Your task to perform on an android device: Add "razer blade" to the cart on costco Image 0: 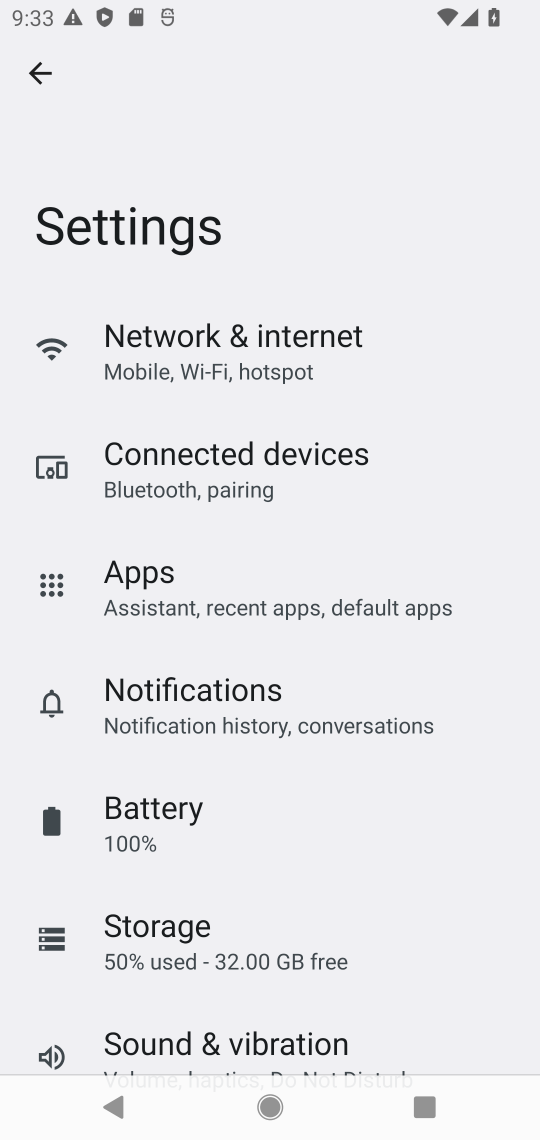
Step 0: press home button
Your task to perform on an android device: Add "razer blade" to the cart on costco Image 1: 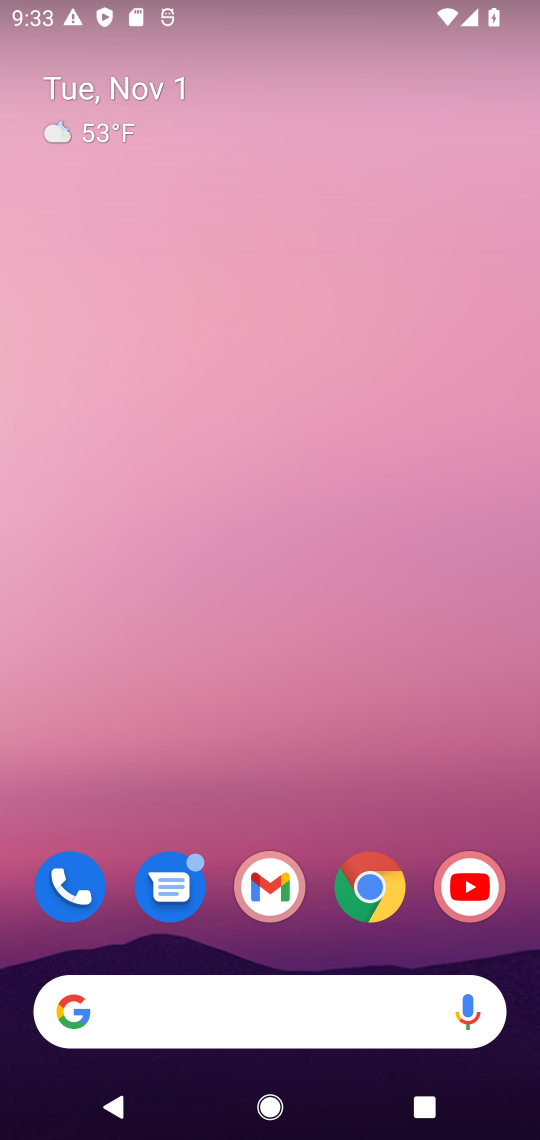
Step 1: drag from (272, 924) to (265, 338)
Your task to perform on an android device: Add "razer blade" to the cart on costco Image 2: 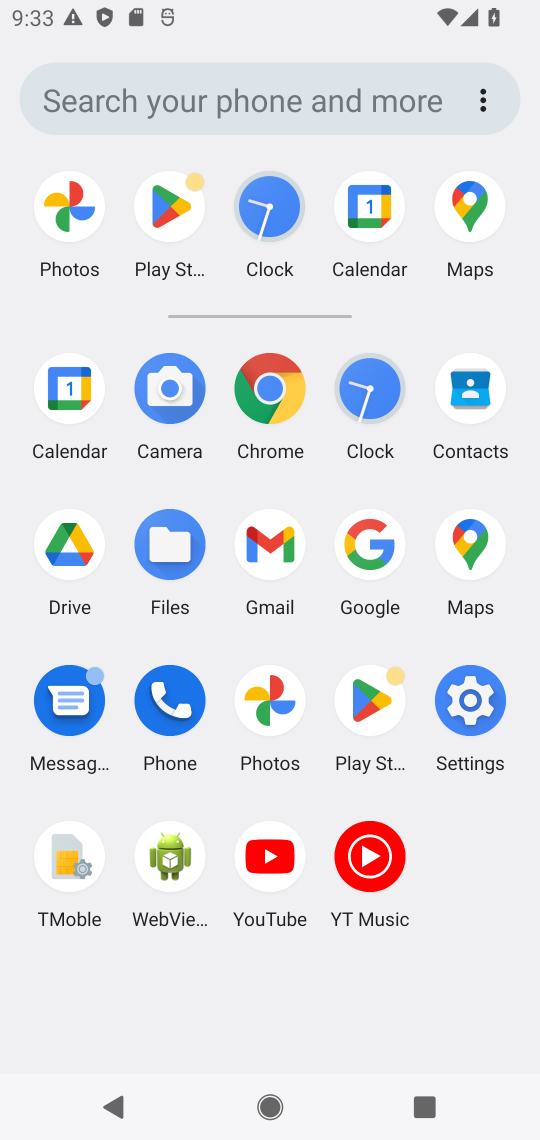
Step 2: click (355, 530)
Your task to perform on an android device: Add "razer blade" to the cart on costco Image 3: 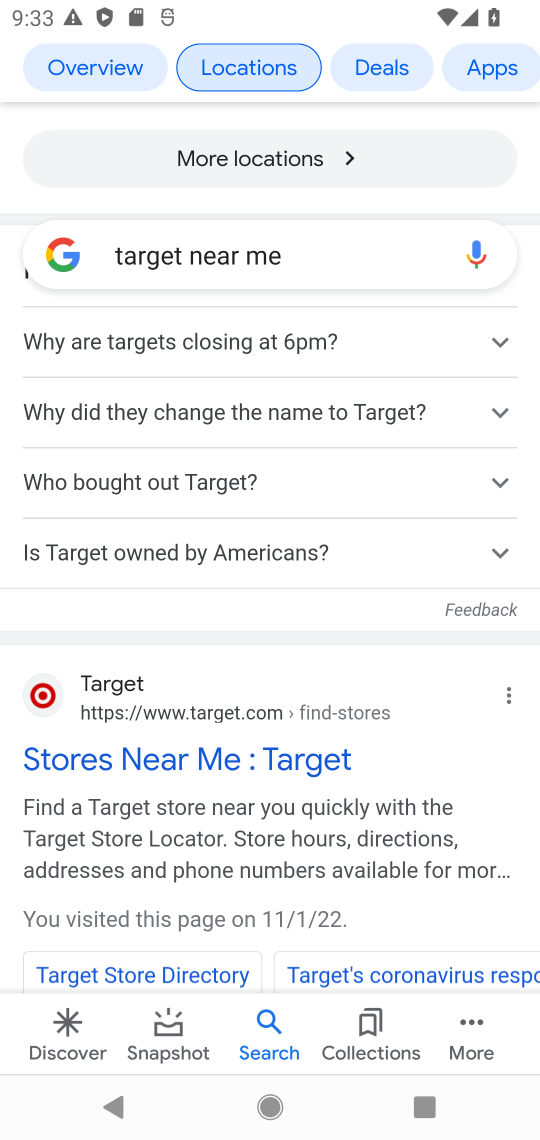
Step 3: click (259, 239)
Your task to perform on an android device: Add "razer blade" to the cart on costco Image 4: 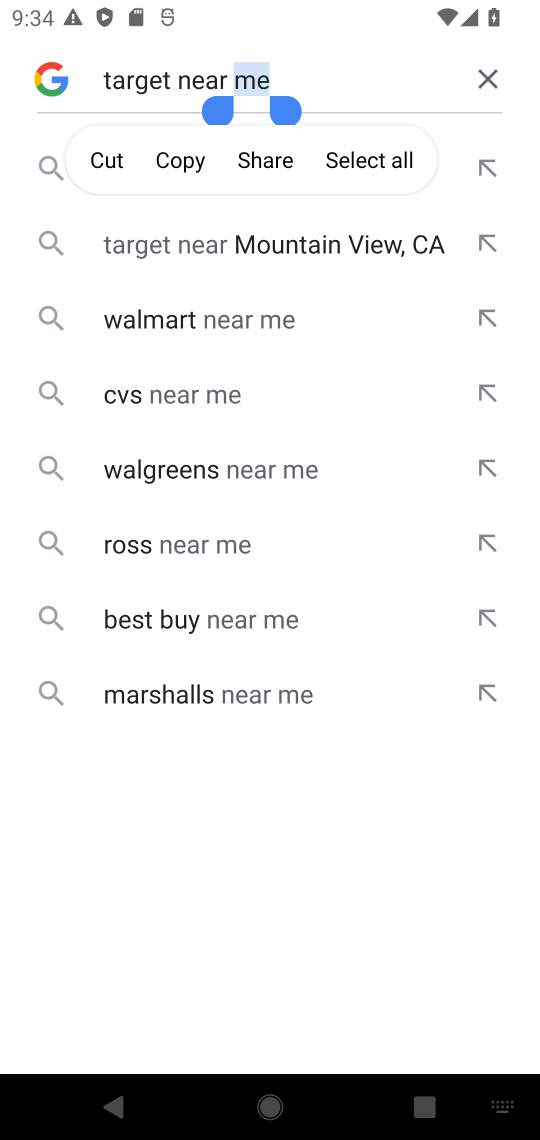
Step 4: click (483, 60)
Your task to perform on an android device: Add "razer blade" to the cart on costco Image 5: 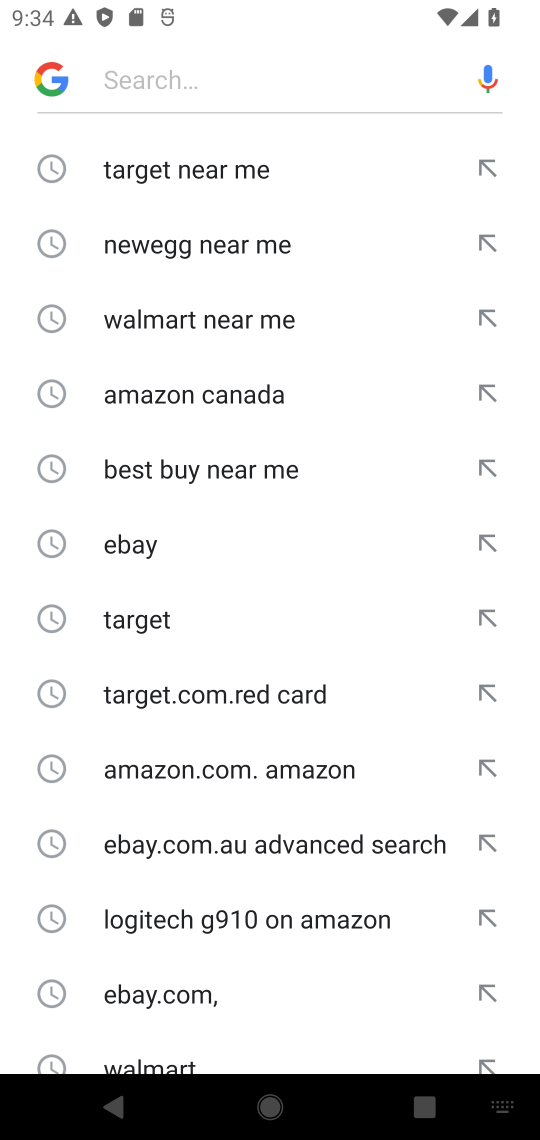
Step 5: click (227, 71)
Your task to perform on an android device: Add "razer blade" to the cart on costco Image 6: 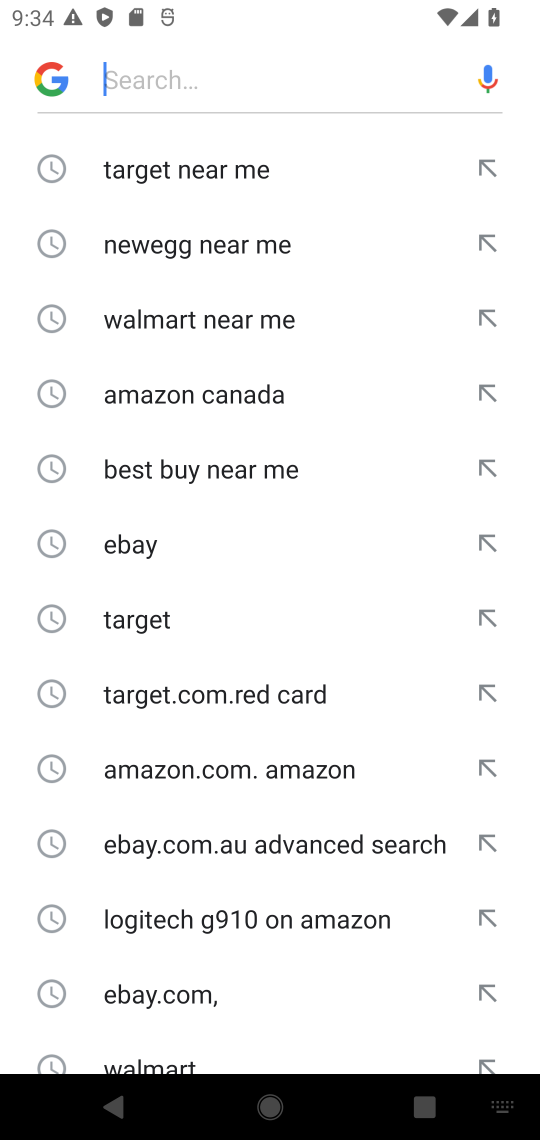
Step 6: type "costco "
Your task to perform on an android device: Add "razer blade" to the cart on costco Image 7: 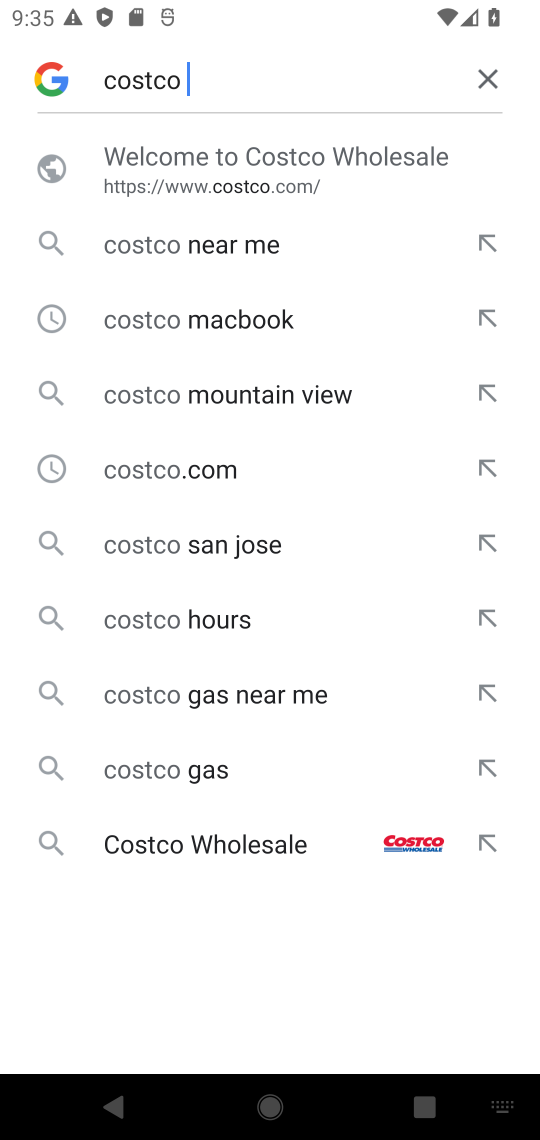
Step 7: click (185, 249)
Your task to perform on an android device: Add "razer blade" to the cart on costco Image 8: 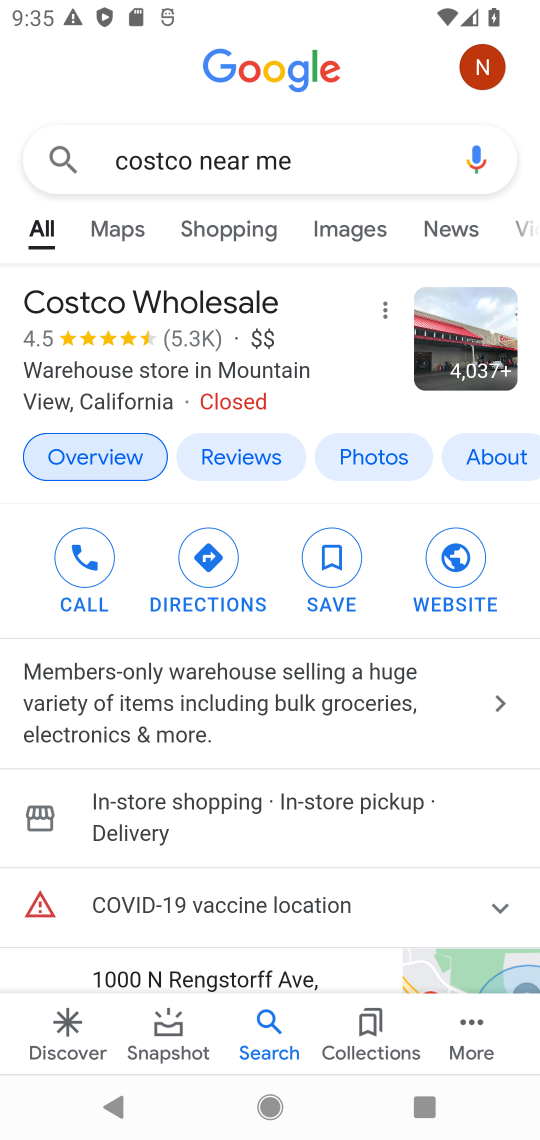
Step 8: drag from (191, 692) to (195, 239)
Your task to perform on an android device: Add "razer blade" to the cart on costco Image 9: 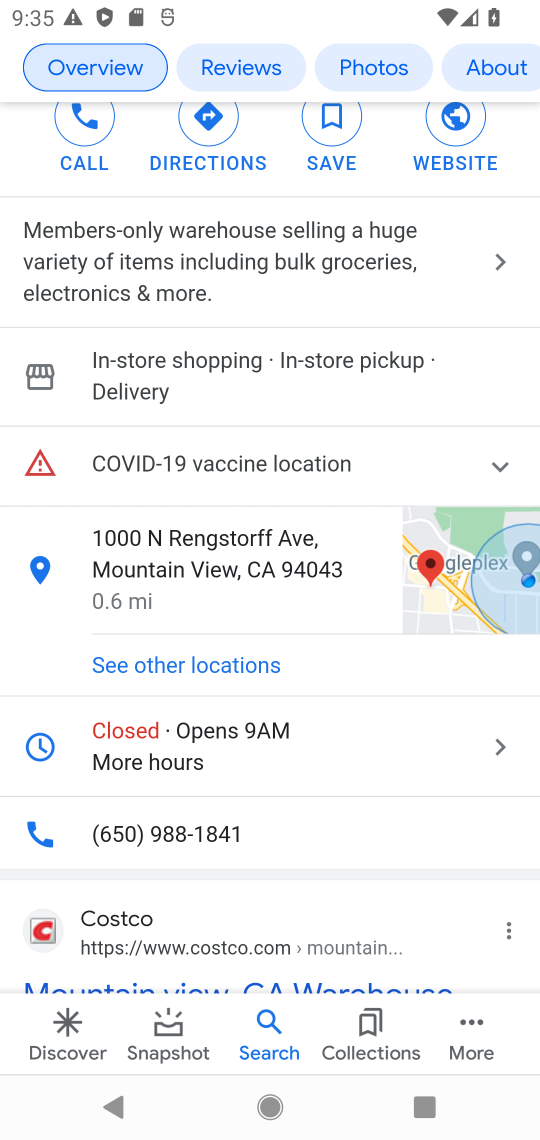
Step 9: drag from (82, 922) to (225, 254)
Your task to perform on an android device: Add "razer blade" to the cart on costco Image 10: 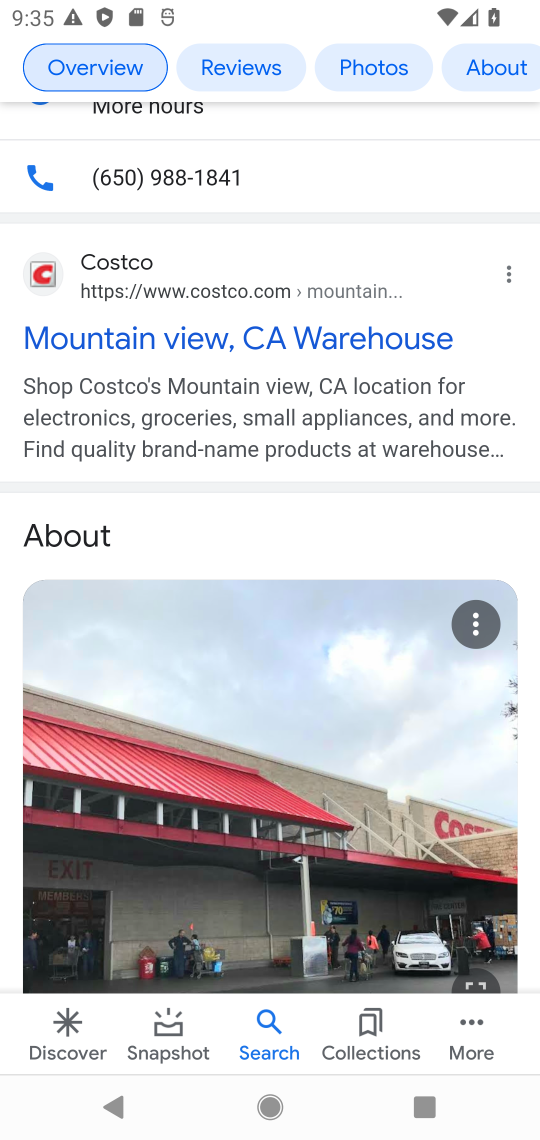
Step 10: drag from (183, 543) to (220, 213)
Your task to perform on an android device: Add "razer blade" to the cart on costco Image 11: 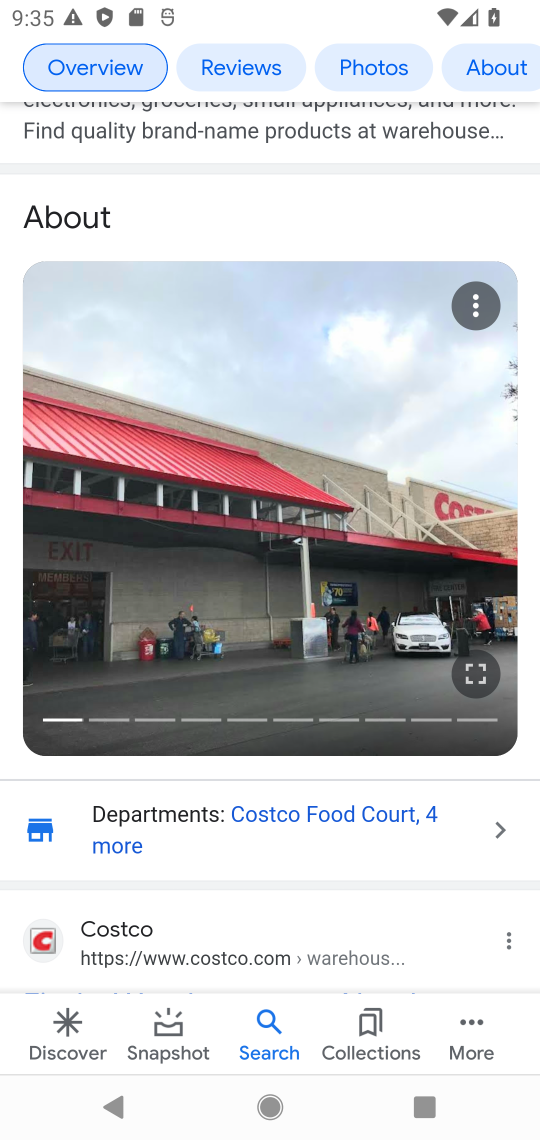
Step 11: drag from (197, 730) to (223, 345)
Your task to perform on an android device: Add "razer blade" to the cart on costco Image 12: 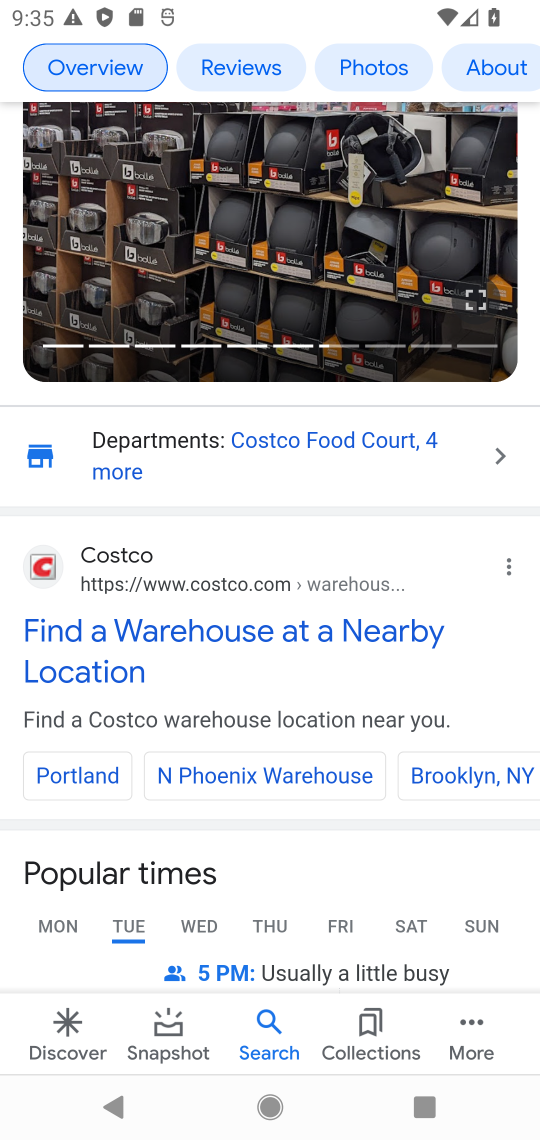
Step 12: click (54, 558)
Your task to perform on an android device: Add "razer blade" to the cart on costco Image 13: 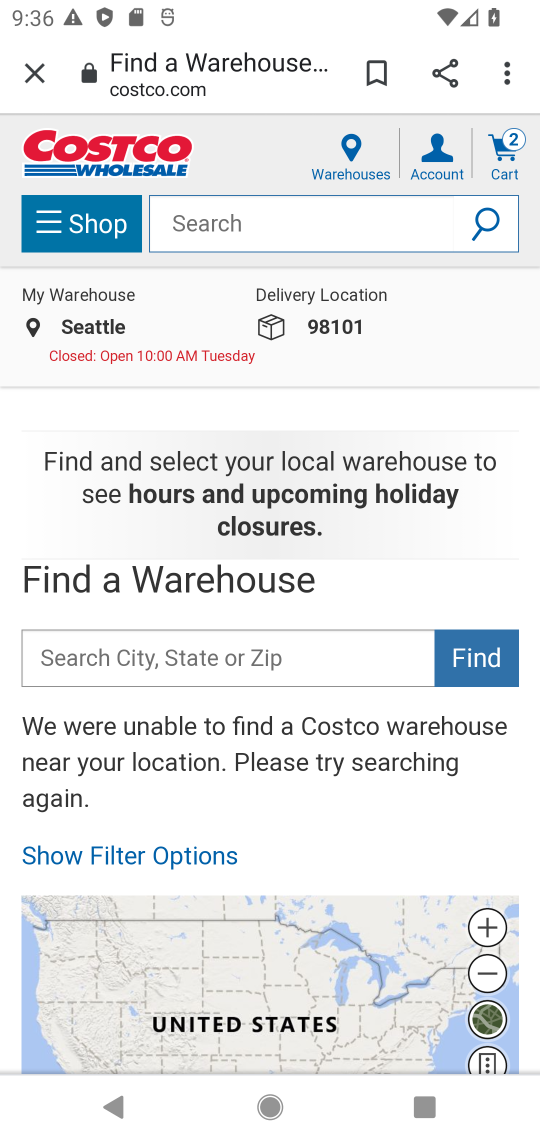
Step 13: click (179, 214)
Your task to perform on an android device: Add "razer blade" to the cart on costco Image 14: 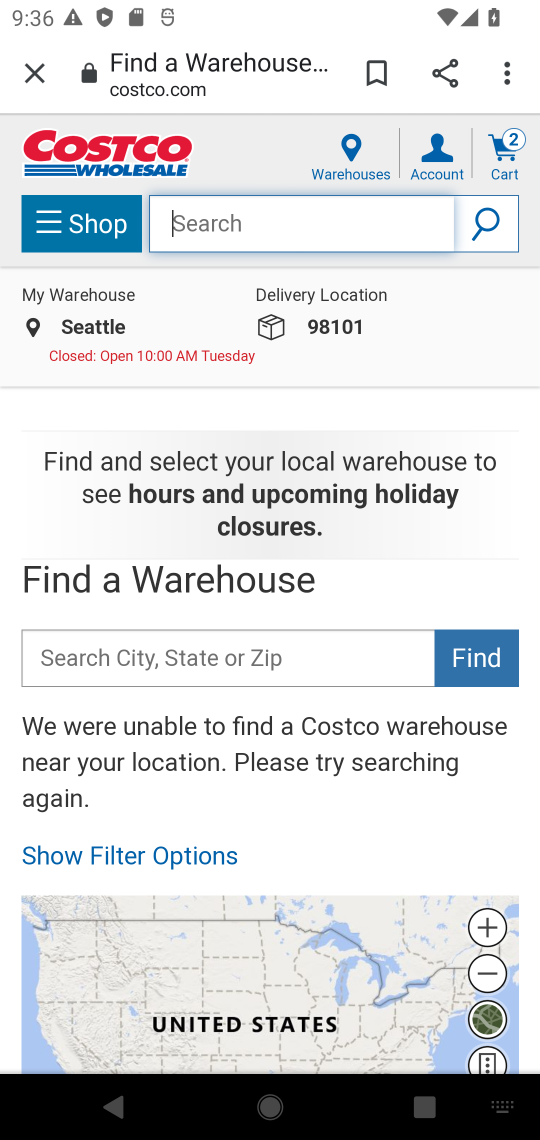
Step 14: click (225, 215)
Your task to perform on an android device: Add "razer blade" to the cart on costco Image 15: 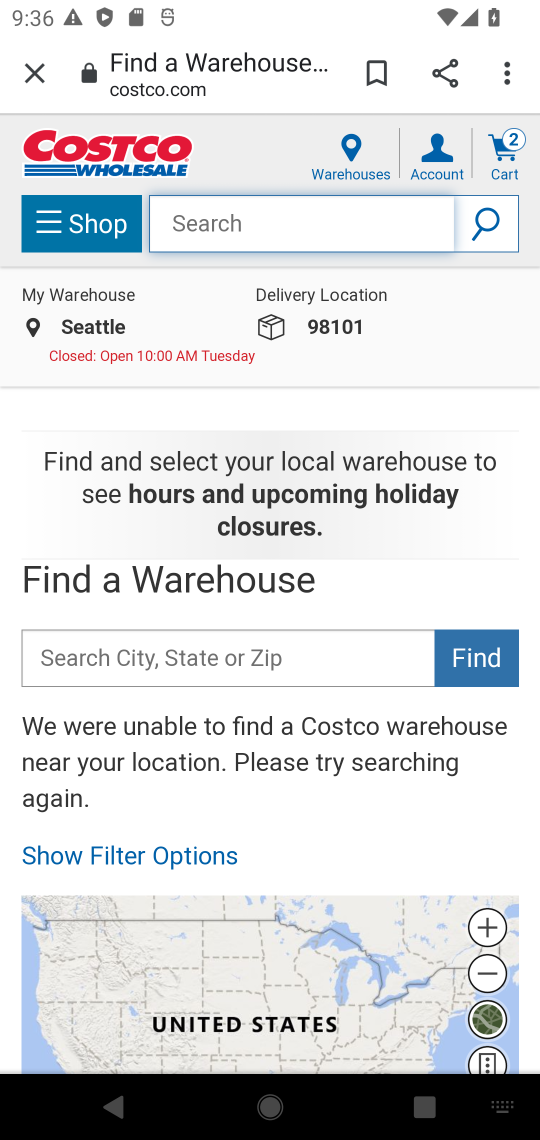
Step 15: type ""razer blade "
Your task to perform on an android device: Add "razer blade" to the cart on costco Image 16: 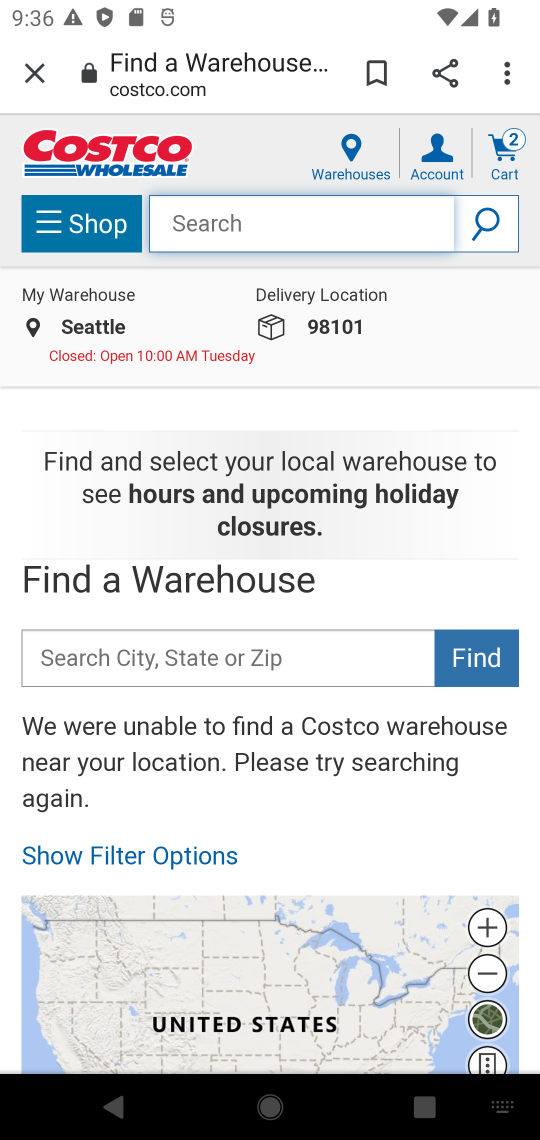
Step 16: click (490, 223)
Your task to perform on an android device: Add "razer blade" to the cart on costco Image 17: 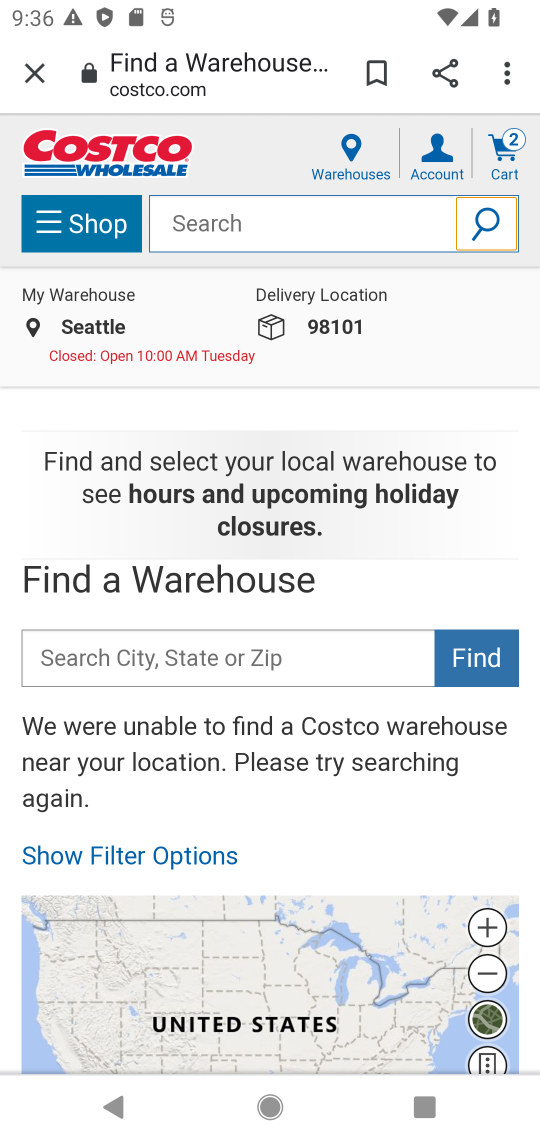
Step 17: click (306, 224)
Your task to perform on an android device: Add "razer blade" to the cart on costco Image 18: 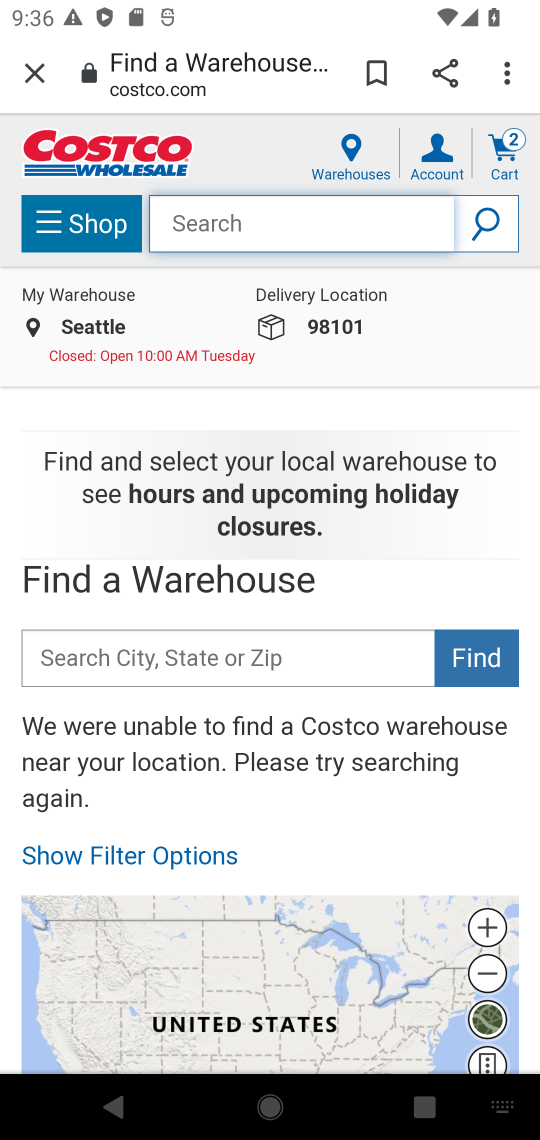
Step 18: click (306, 224)
Your task to perform on an android device: Add "razer blade" to the cart on costco Image 19: 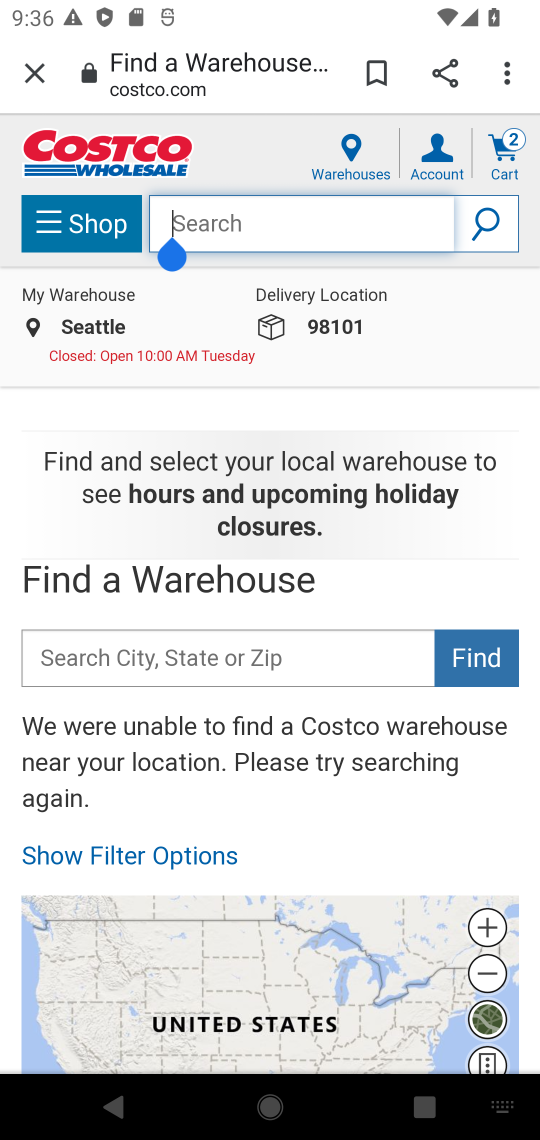
Step 19: click (283, 197)
Your task to perform on an android device: Add "razer blade" to the cart on costco Image 20: 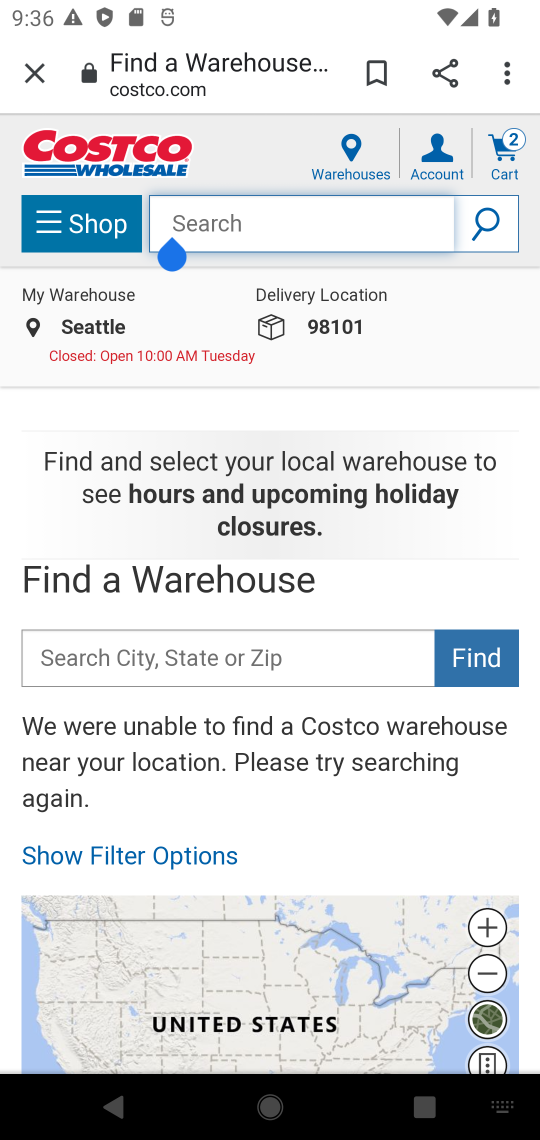
Step 20: click (283, 205)
Your task to perform on an android device: Add "razer blade" to the cart on costco Image 21: 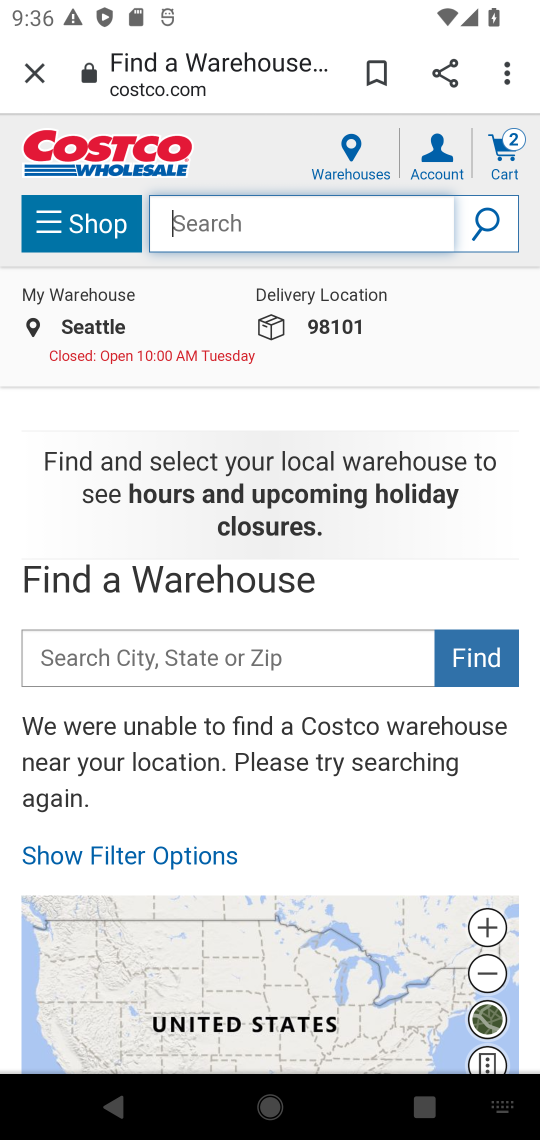
Step 21: type "razer blade "
Your task to perform on an android device: Add "razer blade" to the cart on costco Image 22: 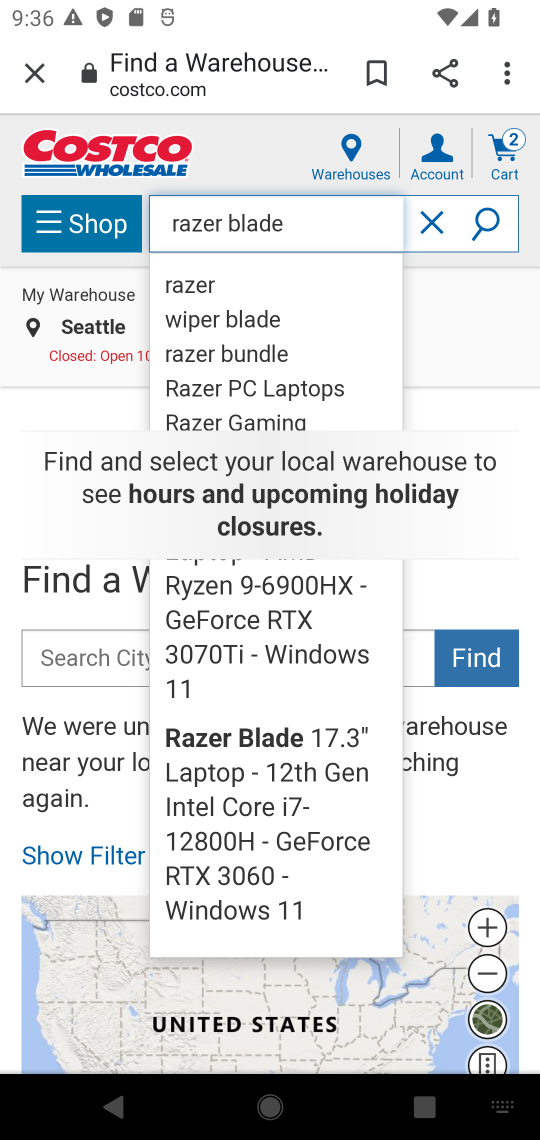
Step 22: click (490, 226)
Your task to perform on an android device: Add "razer blade" to the cart on costco Image 23: 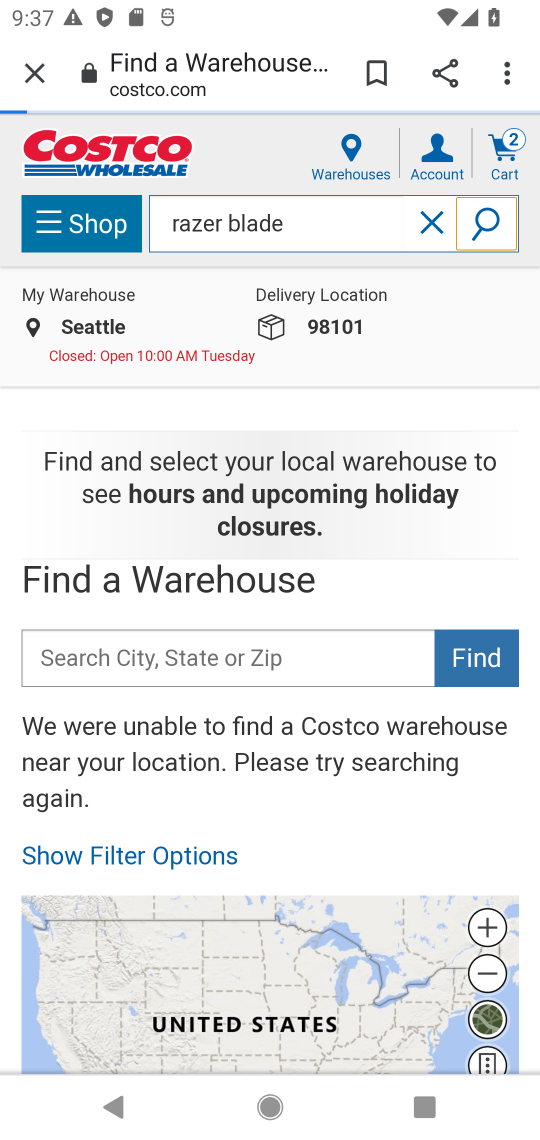
Step 23: click (489, 226)
Your task to perform on an android device: Add "razer blade" to the cart on costco Image 24: 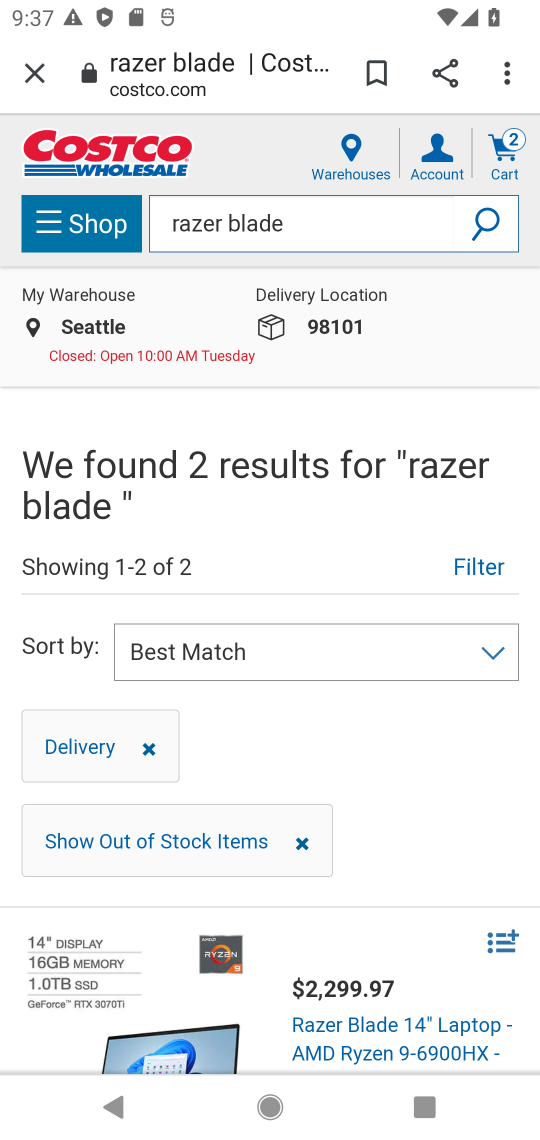
Step 24: drag from (341, 812) to (356, 288)
Your task to perform on an android device: Add "razer blade" to the cart on costco Image 25: 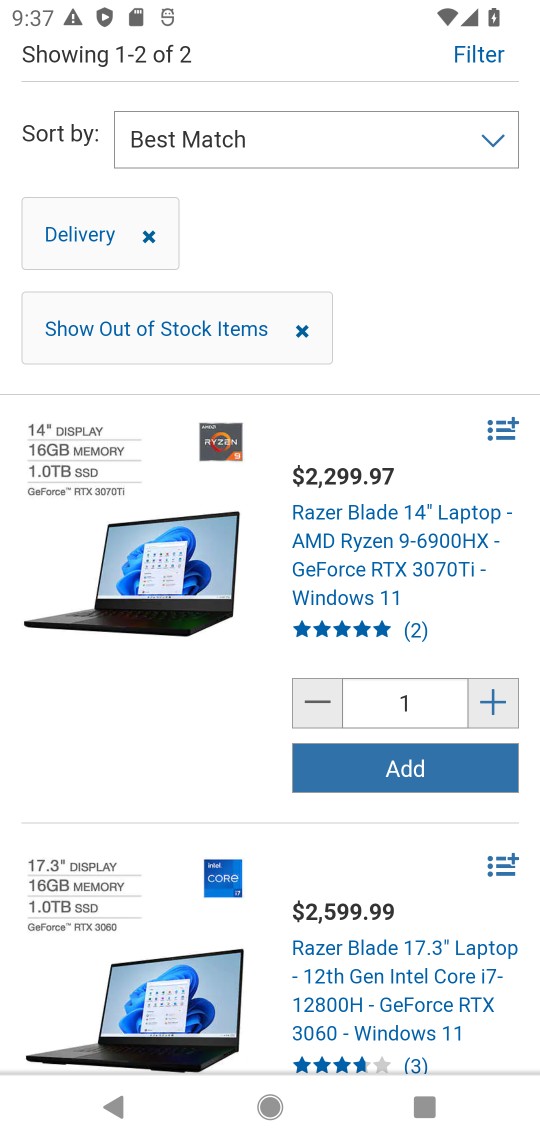
Step 25: click (397, 755)
Your task to perform on an android device: Add "razer blade" to the cart on costco Image 26: 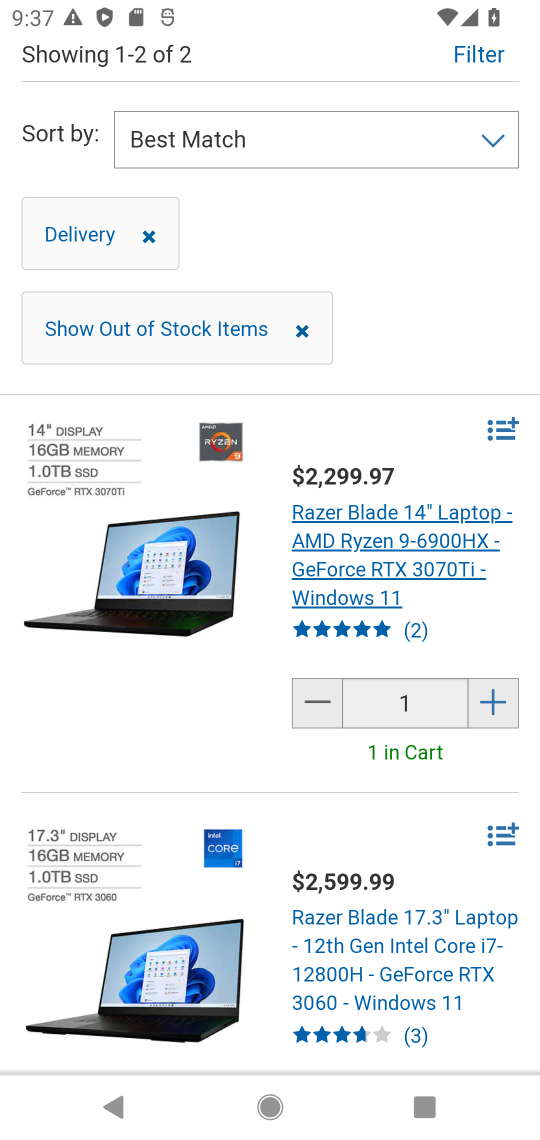
Step 26: task complete